Your task to perform on an android device: Go to Android settings Image 0: 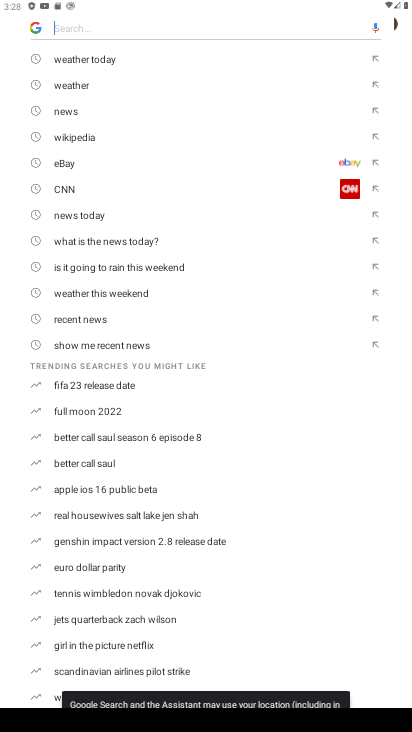
Step 0: press home button
Your task to perform on an android device: Go to Android settings Image 1: 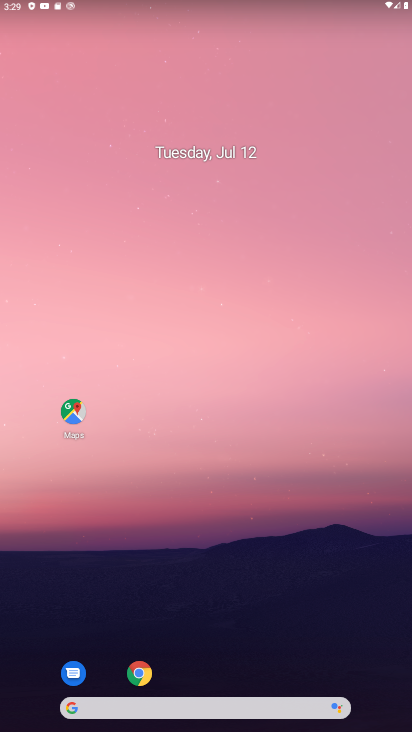
Step 1: drag from (182, 707) to (186, 160)
Your task to perform on an android device: Go to Android settings Image 2: 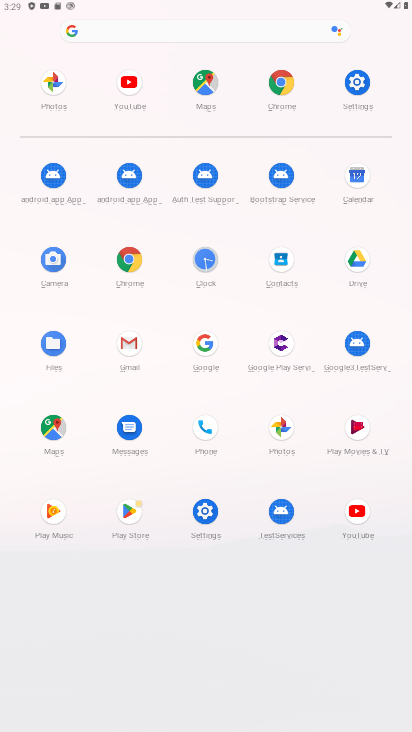
Step 2: click (358, 81)
Your task to perform on an android device: Go to Android settings Image 3: 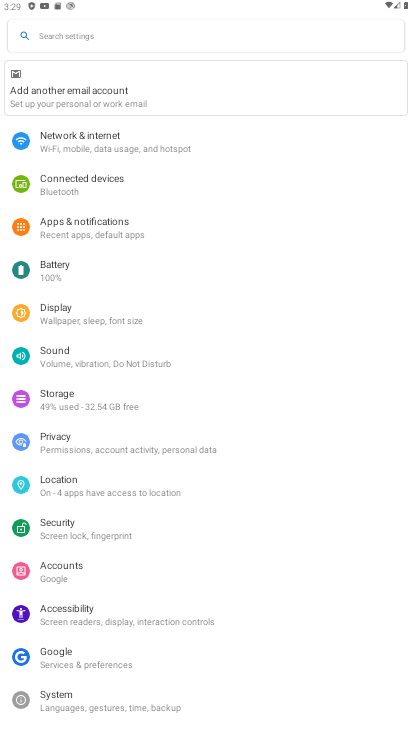
Step 3: task complete